Your task to perform on an android device: What's the time in New York? Image 0: 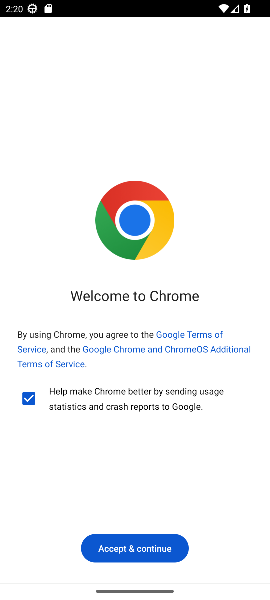
Step 0: press home button
Your task to perform on an android device: What's the time in New York? Image 1: 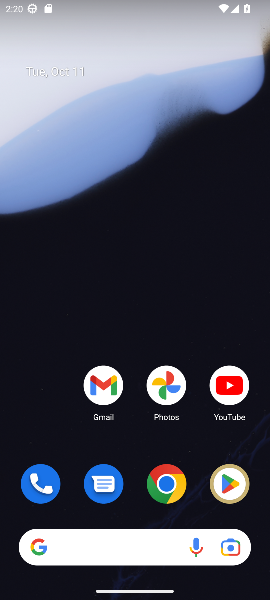
Step 1: drag from (51, 390) to (49, 72)
Your task to perform on an android device: What's the time in New York? Image 2: 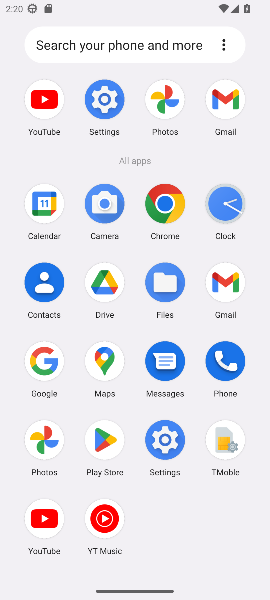
Step 2: click (38, 360)
Your task to perform on an android device: What's the time in New York? Image 3: 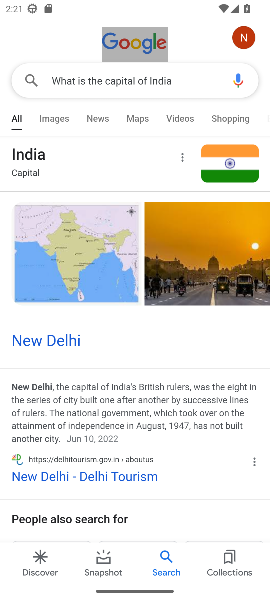
Step 3: click (183, 71)
Your task to perform on an android device: What's the time in New York? Image 4: 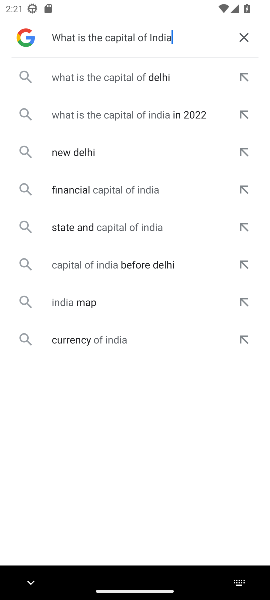
Step 4: click (248, 35)
Your task to perform on an android device: What's the time in New York? Image 5: 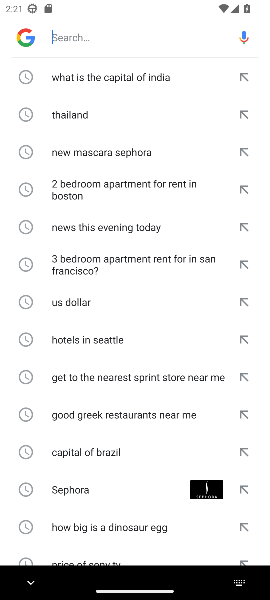
Step 5: type "What's the time in New York"
Your task to perform on an android device: What's the time in New York? Image 6: 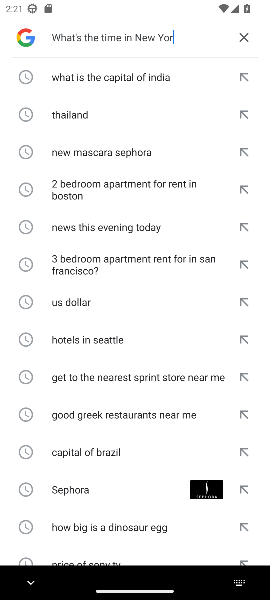
Step 6: press enter
Your task to perform on an android device: What's the time in New York? Image 7: 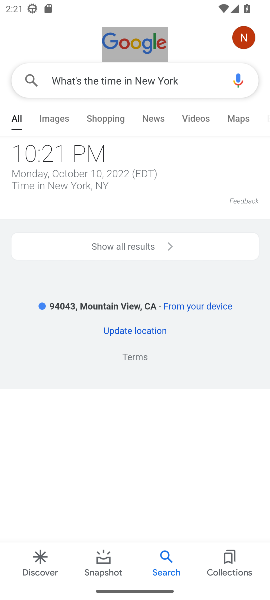
Step 7: task complete